Your task to perform on an android device: turn off airplane mode Image 0: 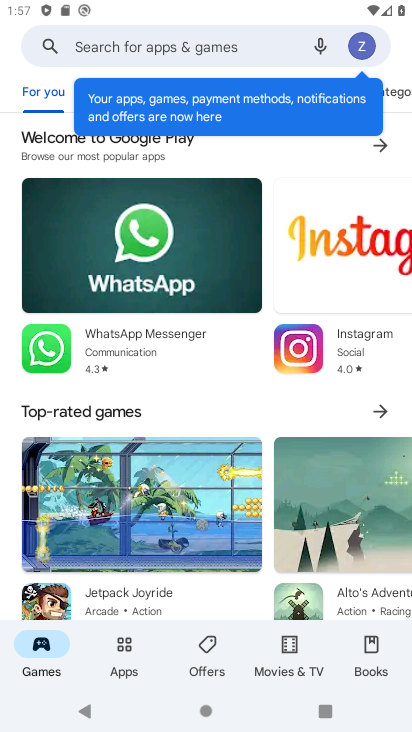
Step 0: drag from (234, 7) to (242, 504)
Your task to perform on an android device: turn off airplane mode Image 1: 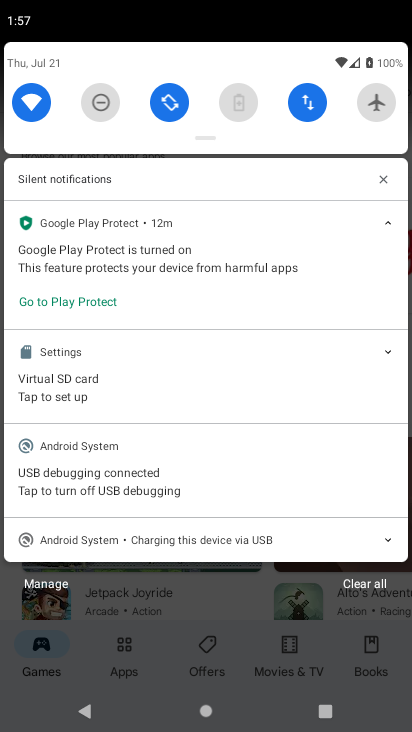
Step 1: task complete